Your task to perform on an android device: Go to calendar. Show me events next week Image 0: 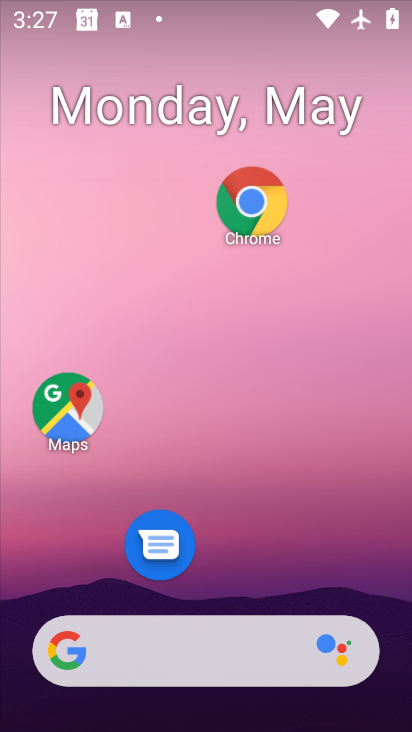
Step 0: drag from (242, 447) to (249, 252)
Your task to perform on an android device: Go to calendar. Show me events next week Image 1: 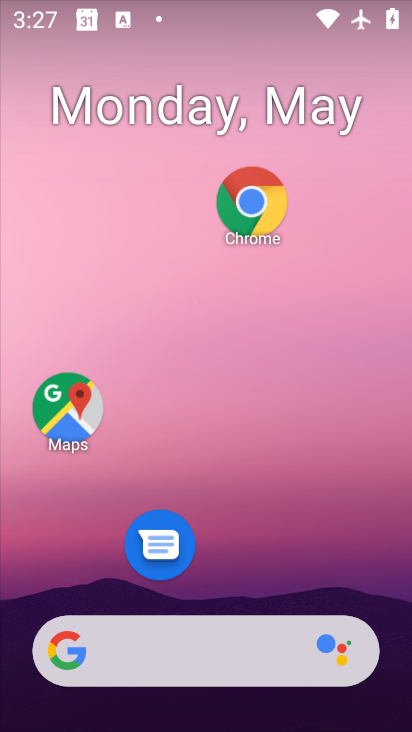
Step 1: drag from (234, 587) to (249, 158)
Your task to perform on an android device: Go to calendar. Show me events next week Image 2: 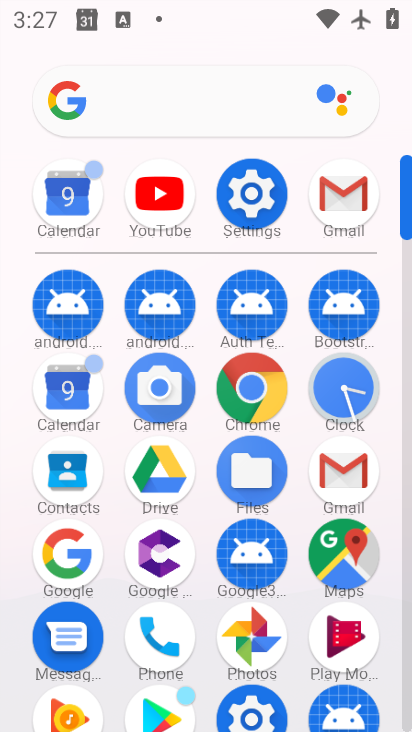
Step 2: click (75, 405)
Your task to perform on an android device: Go to calendar. Show me events next week Image 3: 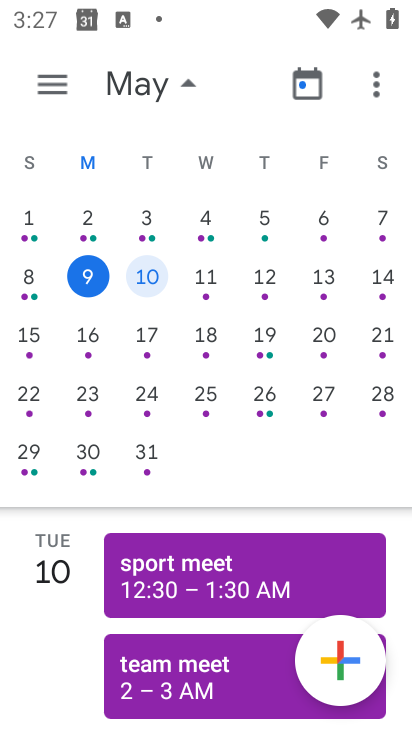
Step 3: click (154, 327)
Your task to perform on an android device: Go to calendar. Show me events next week Image 4: 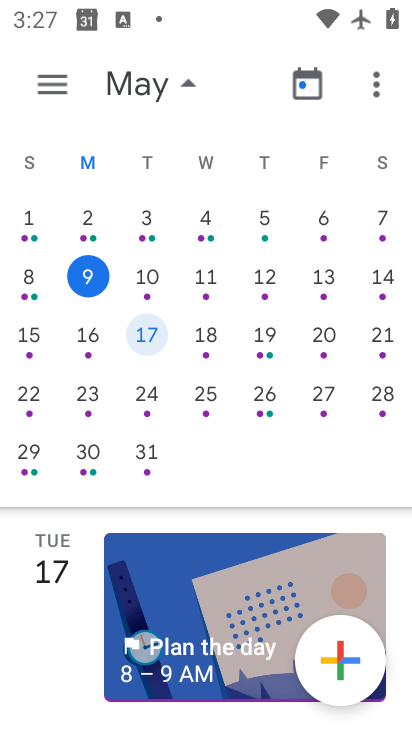
Step 4: click (35, 342)
Your task to perform on an android device: Go to calendar. Show me events next week Image 5: 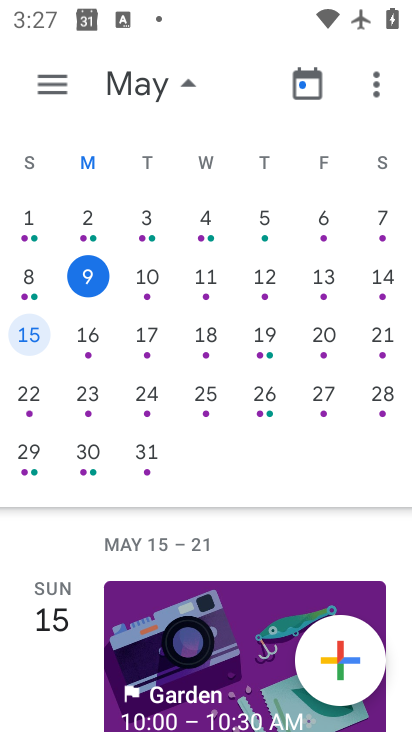
Step 5: task complete